Your task to perform on an android device: Set the phone to "Do not disturb". Image 0: 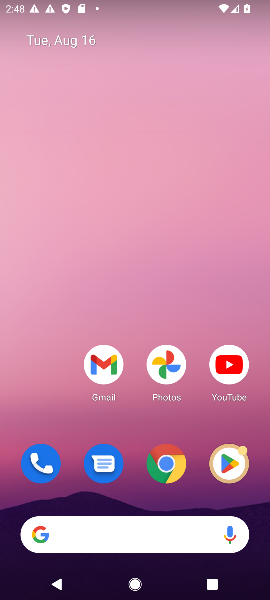
Step 0: drag from (128, 510) to (71, 0)
Your task to perform on an android device: Set the phone to "Do not disturb". Image 1: 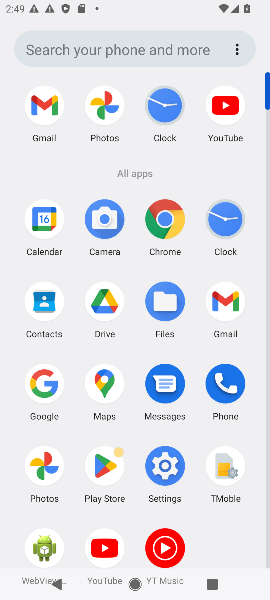
Step 1: drag from (160, 4) to (180, 445)
Your task to perform on an android device: Set the phone to "Do not disturb". Image 2: 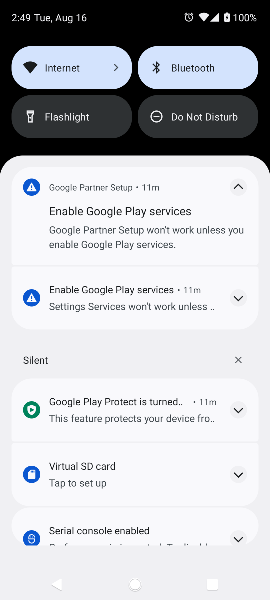
Step 2: drag from (113, 109) to (113, 378)
Your task to perform on an android device: Set the phone to "Do not disturb". Image 3: 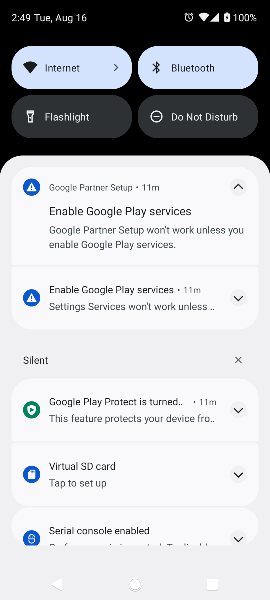
Step 3: click (207, 128)
Your task to perform on an android device: Set the phone to "Do not disturb". Image 4: 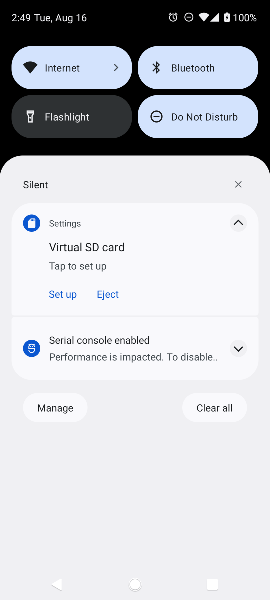
Step 4: task complete